Your task to perform on an android device: Search for vegetarian restaurants on Maps Image 0: 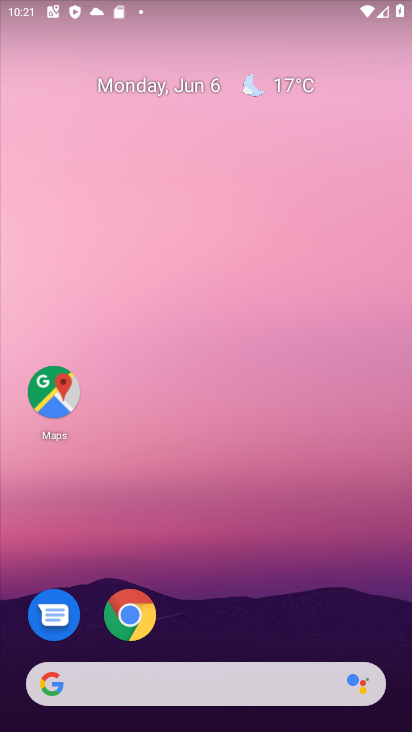
Step 0: click (60, 384)
Your task to perform on an android device: Search for vegetarian restaurants on Maps Image 1: 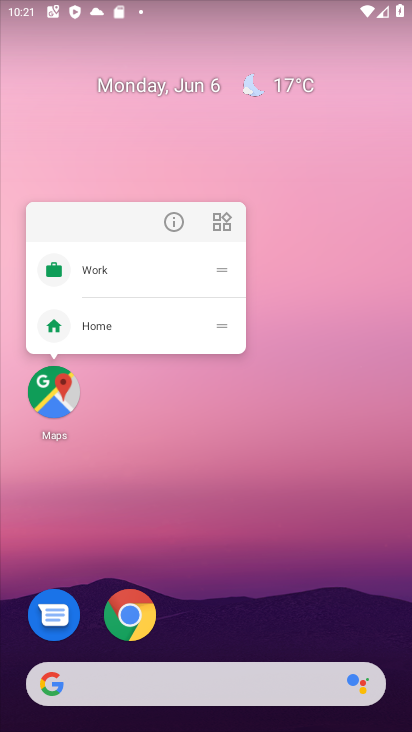
Step 1: click (53, 397)
Your task to perform on an android device: Search for vegetarian restaurants on Maps Image 2: 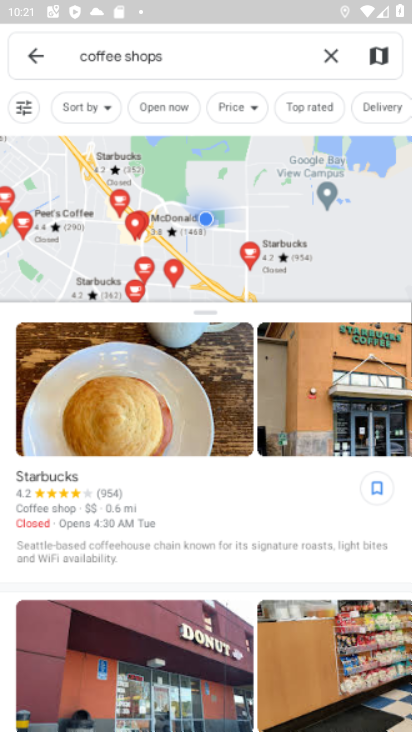
Step 2: click (331, 54)
Your task to perform on an android device: Search for vegetarian restaurants on Maps Image 3: 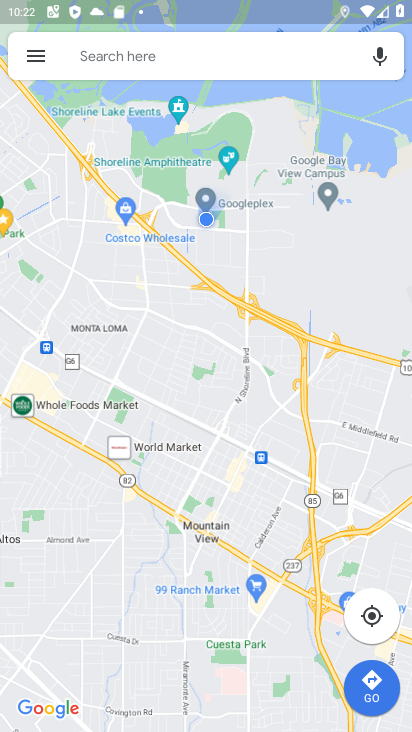
Step 3: click (147, 76)
Your task to perform on an android device: Search for vegetarian restaurants on Maps Image 4: 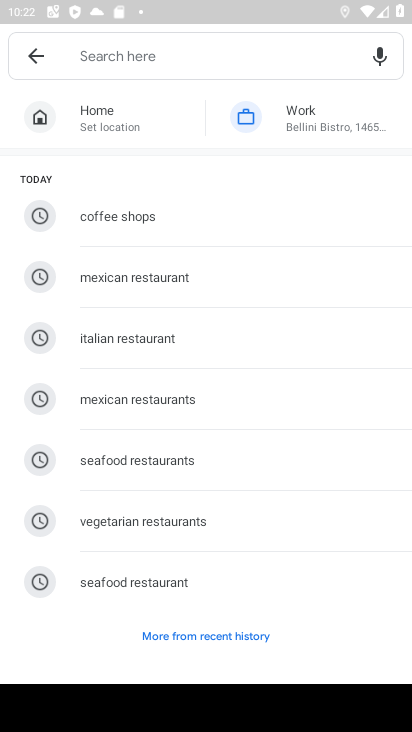
Step 4: click (144, 522)
Your task to perform on an android device: Search for vegetarian restaurants on Maps Image 5: 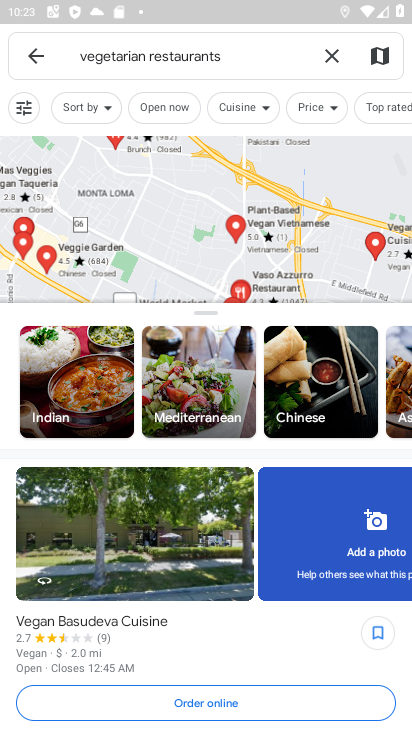
Step 5: task complete